Your task to perform on an android device: open a bookmark in the chrome app Image 0: 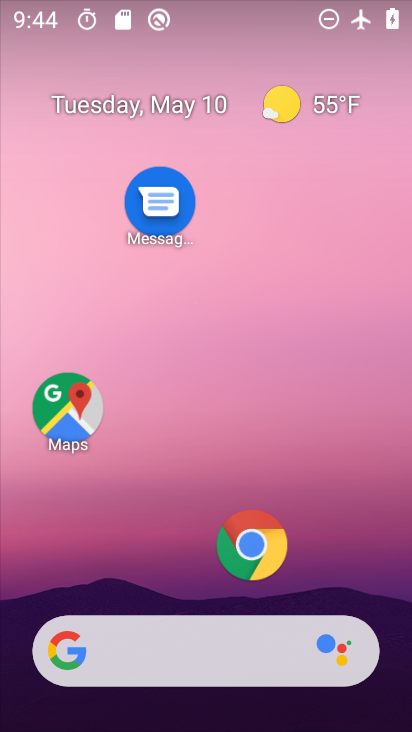
Step 0: click (263, 521)
Your task to perform on an android device: open a bookmark in the chrome app Image 1: 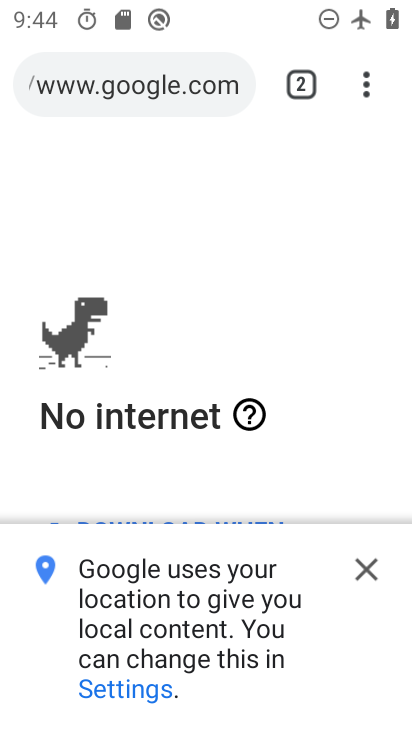
Step 1: drag from (362, 87) to (156, 322)
Your task to perform on an android device: open a bookmark in the chrome app Image 2: 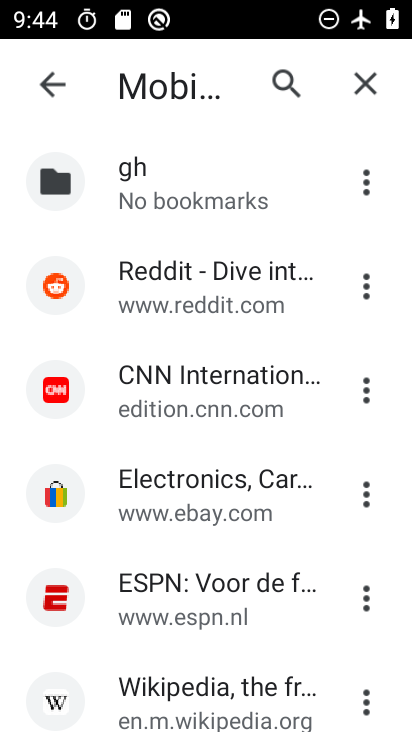
Step 2: click (156, 322)
Your task to perform on an android device: open a bookmark in the chrome app Image 3: 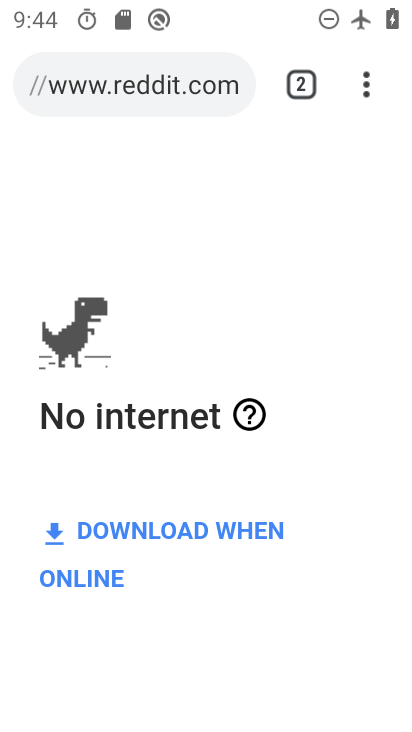
Step 3: task complete